Your task to perform on an android device: move a message to another label in the gmail app Image 0: 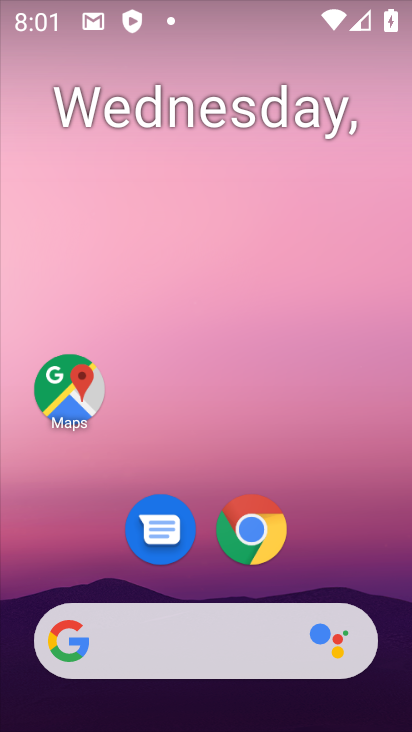
Step 0: drag from (188, 535) to (153, 84)
Your task to perform on an android device: move a message to another label in the gmail app Image 1: 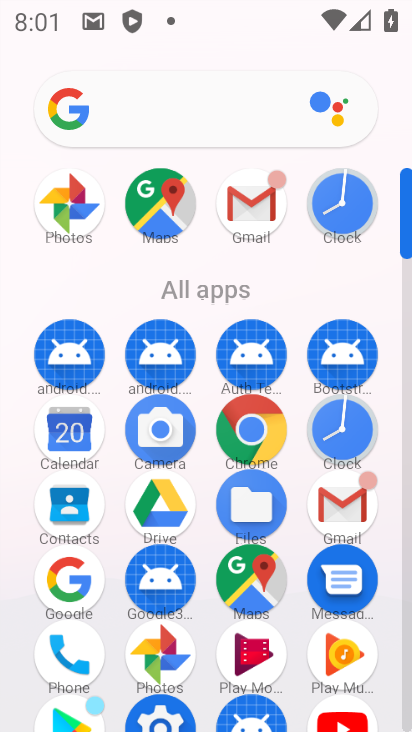
Step 1: click (271, 188)
Your task to perform on an android device: move a message to another label in the gmail app Image 2: 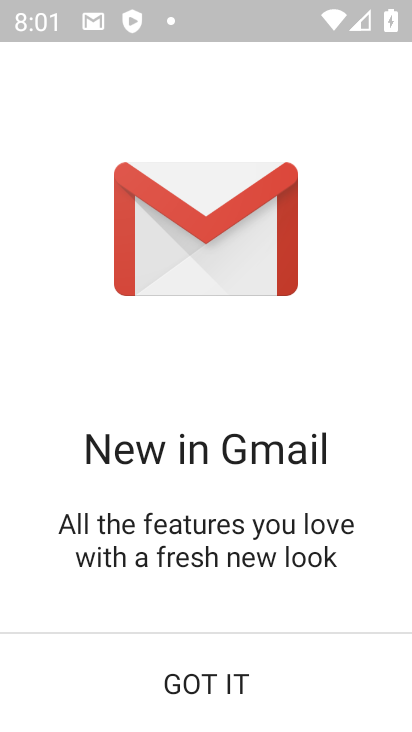
Step 2: click (160, 691)
Your task to perform on an android device: move a message to another label in the gmail app Image 3: 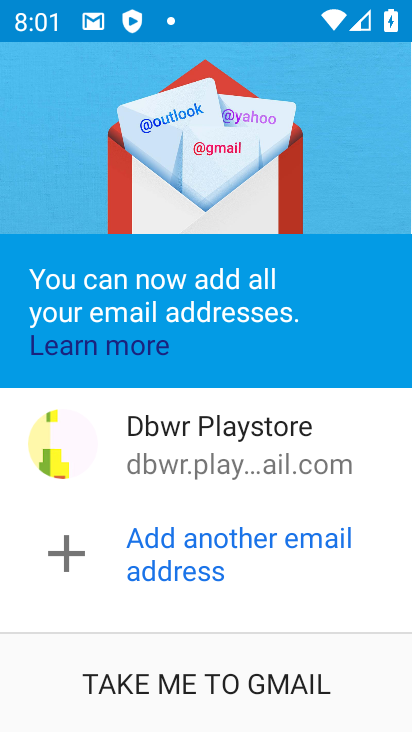
Step 3: click (161, 689)
Your task to perform on an android device: move a message to another label in the gmail app Image 4: 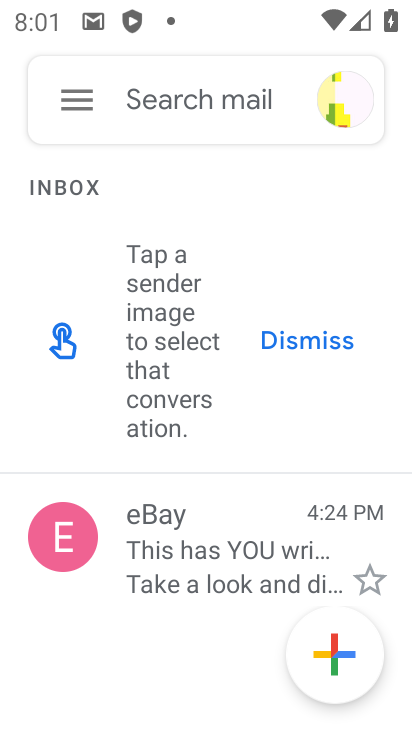
Step 4: click (261, 563)
Your task to perform on an android device: move a message to another label in the gmail app Image 5: 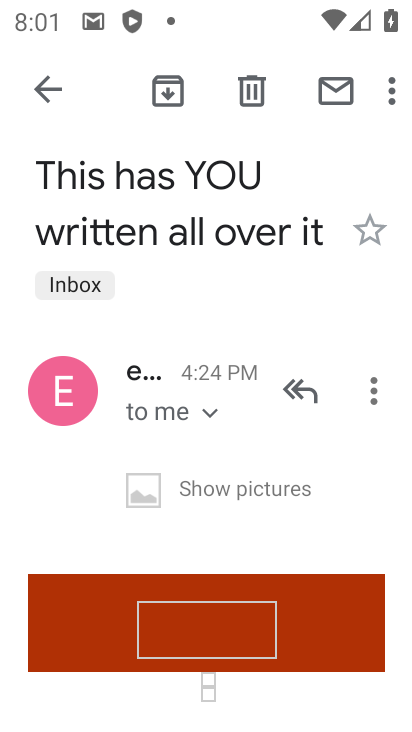
Step 5: click (391, 90)
Your task to perform on an android device: move a message to another label in the gmail app Image 6: 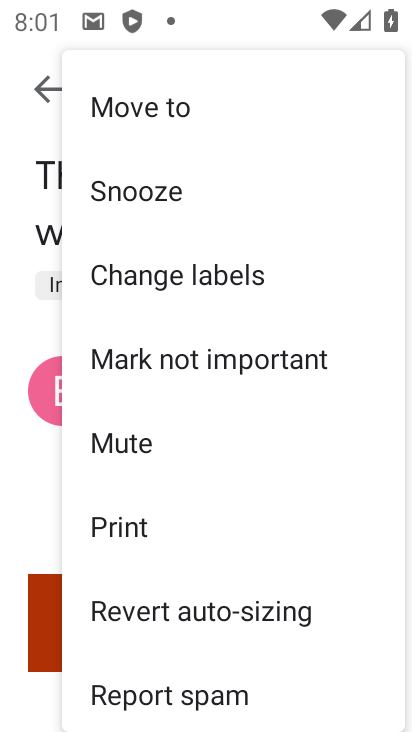
Step 6: click (164, 267)
Your task to perform on an android device: move a message to another label in the gmail app Image 7: 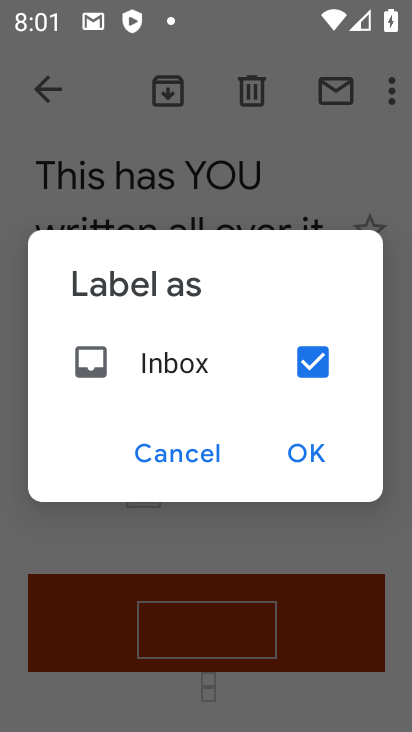
Step 7: click (304, 438)
Your task to perform on an android device: move a message to another label in the gmail app Image 8: 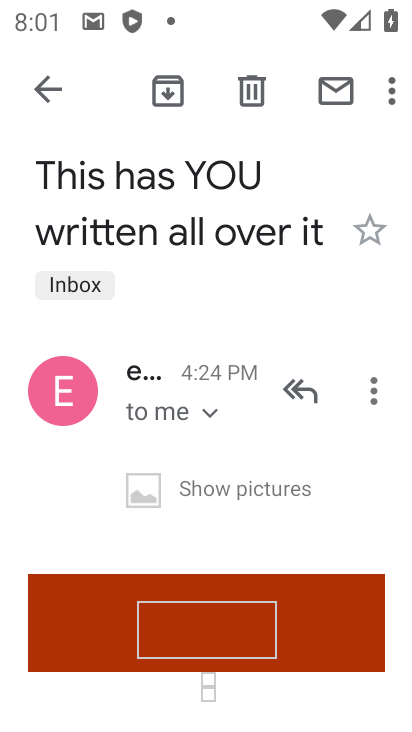
Step 8: task complete